Your task to perform on an android device: Open Google Chrome Image 0: 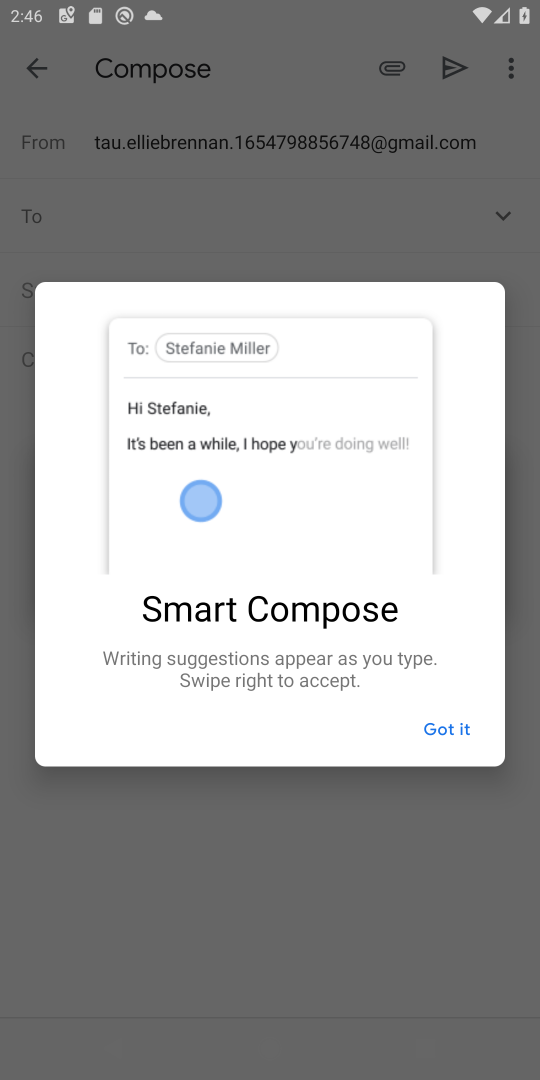
Step 0: press home button
Your task to perform on an android device: Open Google Chrome Image 1: 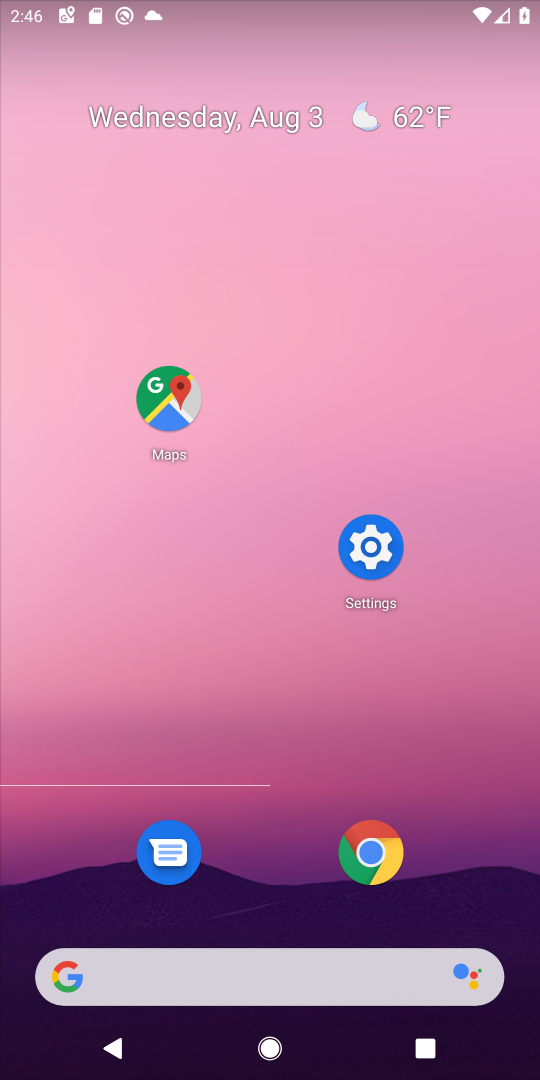
Step 1: click (374, 852)
Your task to perform on an android device: Open Google Chrome Image 2: 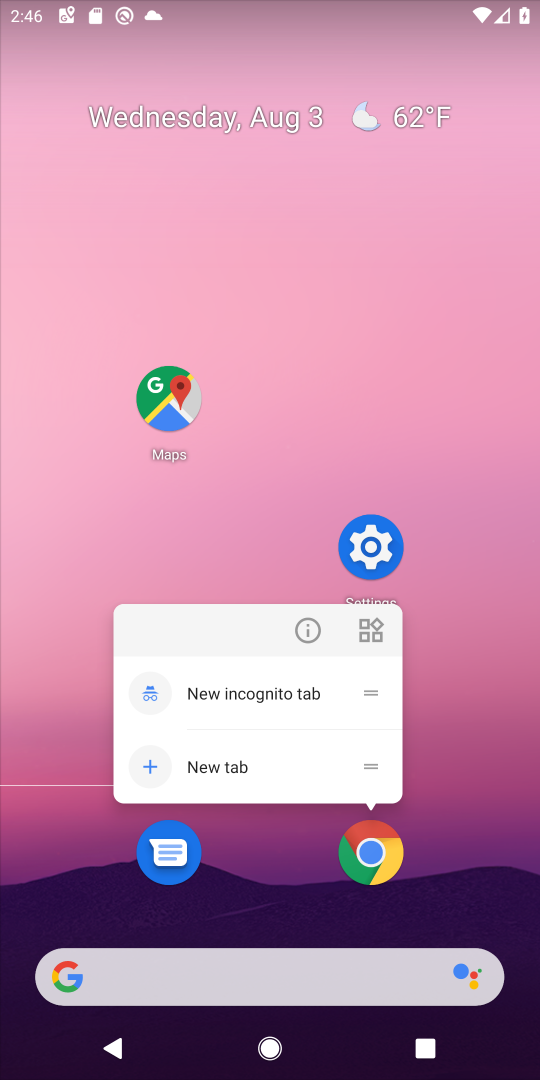
Step 2: click (374, 852)
Your task to perform on an android device: Open Google Chrome Image 3: 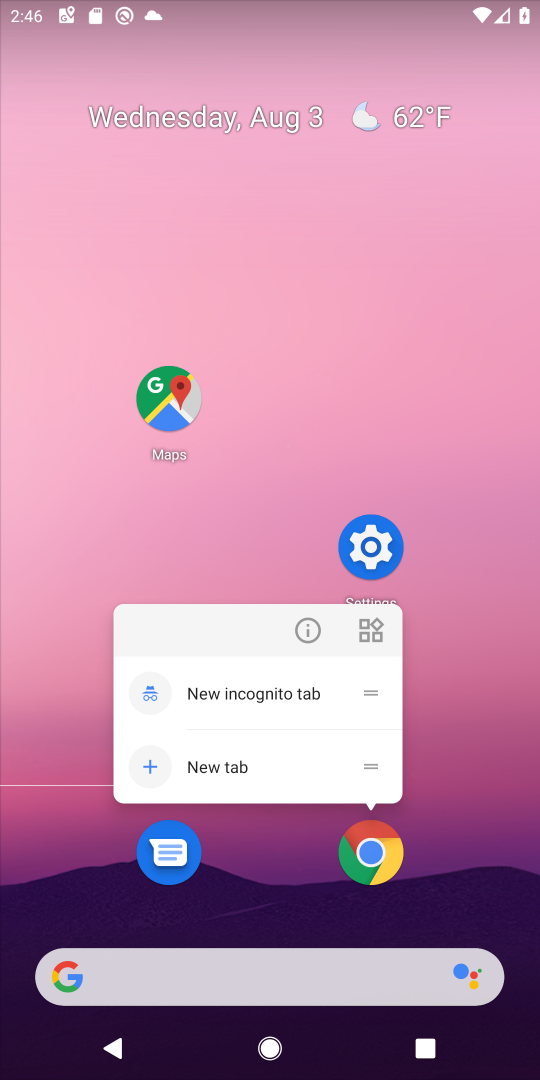
Step 3: click (374, 852)
Your task to perform on an android device: Open Google Chrome Image 4: 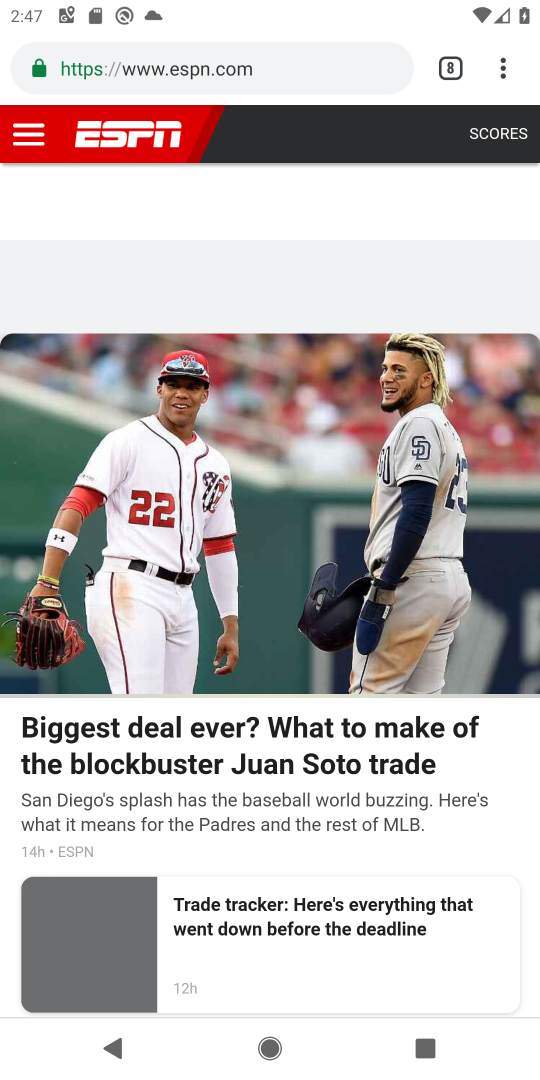
Step 4: task complete